Your task to perform on an android device: Open Google Chrome and open the bookmarks view Image 0: 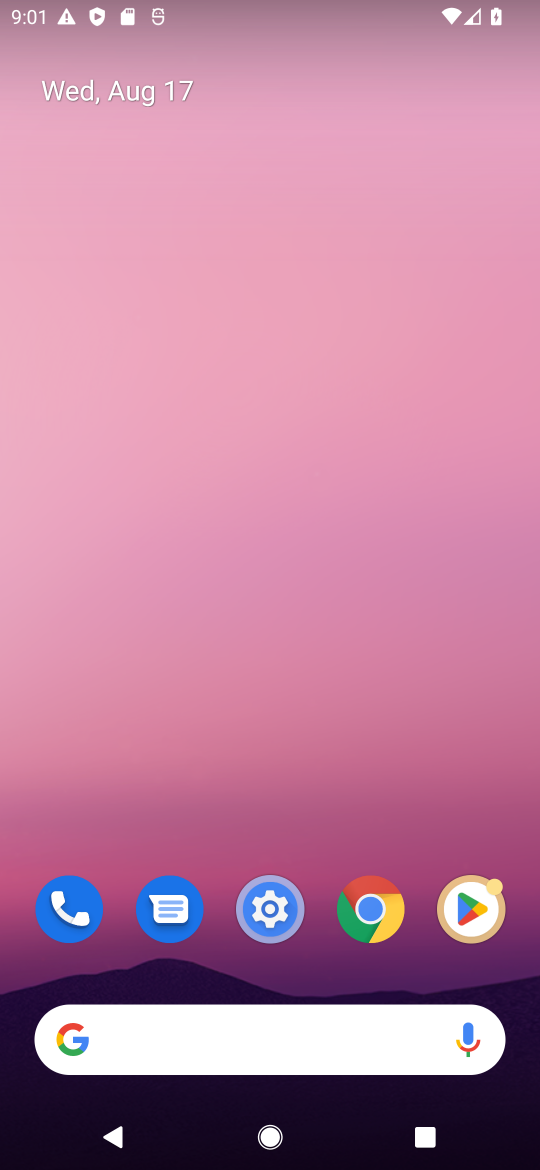
Step 0: drag from (280, 839) to (236, 204)
Your task to perform on an android device: Open Google Chrome and open the bookmarks view Image 1: 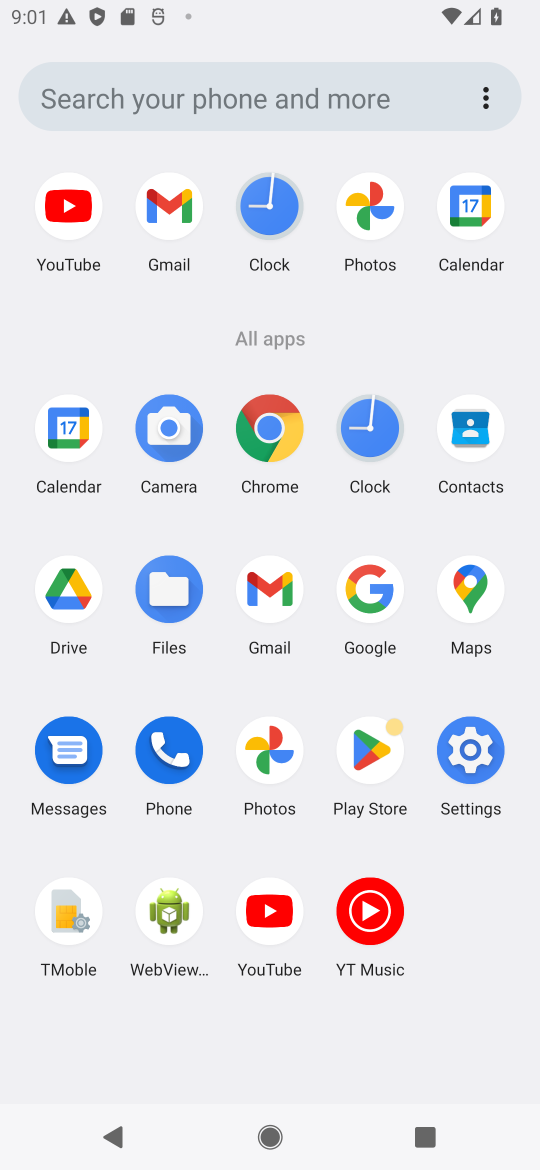
Step 1: click (256, 432)
Your task to perform on an android device: Open Google Chrome and open the bookmarks view Image 2: 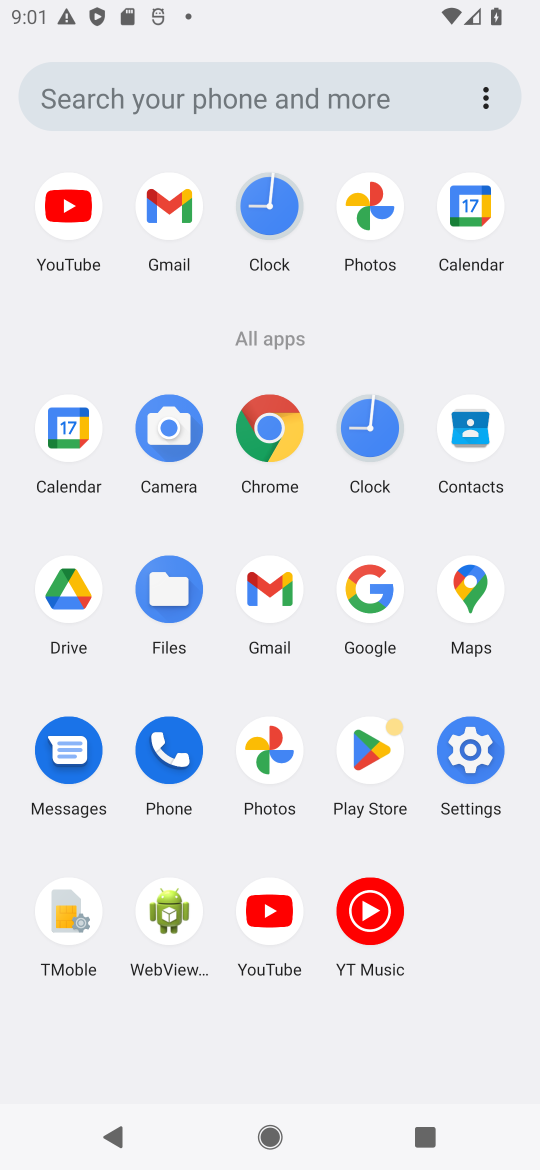
Step 2: click (264, 449)
Your task to perform on an android device: Open Google Chrome and open the bookmarks view Image 3: 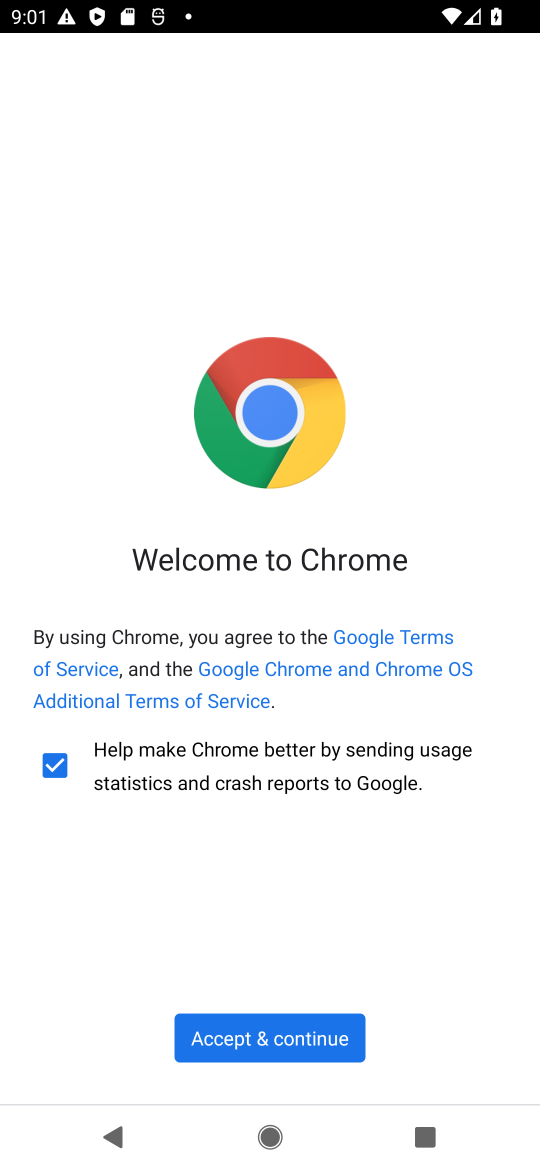
Step 3: click (347, 1033)
Your task to perform on an android device: Open Google Chrome and open the bookmarks view Image 4: 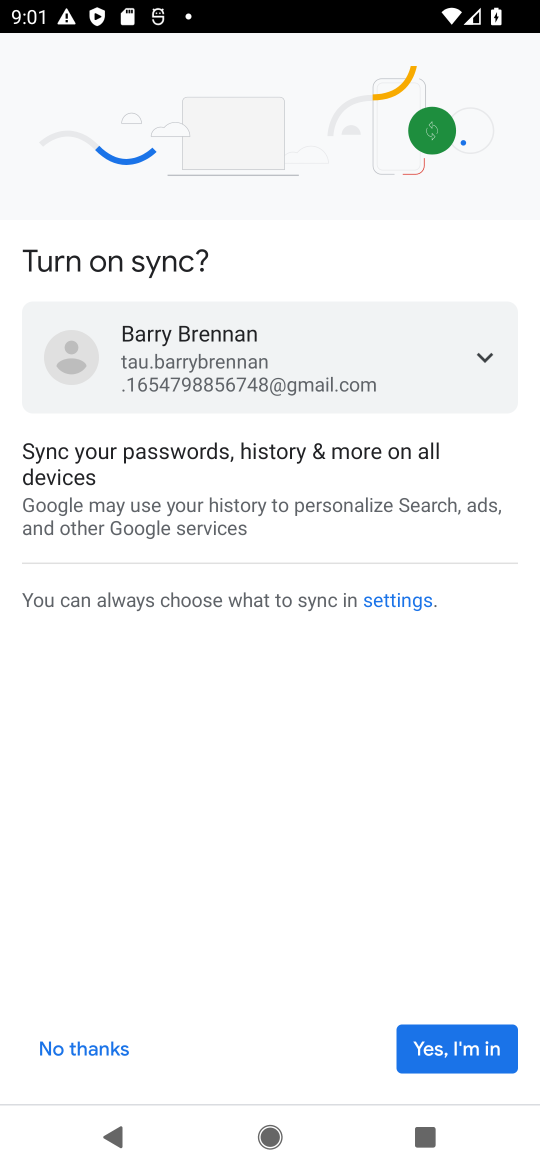
Step 4: click (471, 1045)
Your task to perform on an android device: Open Google Chrome and open the bookmarks view Image 5: 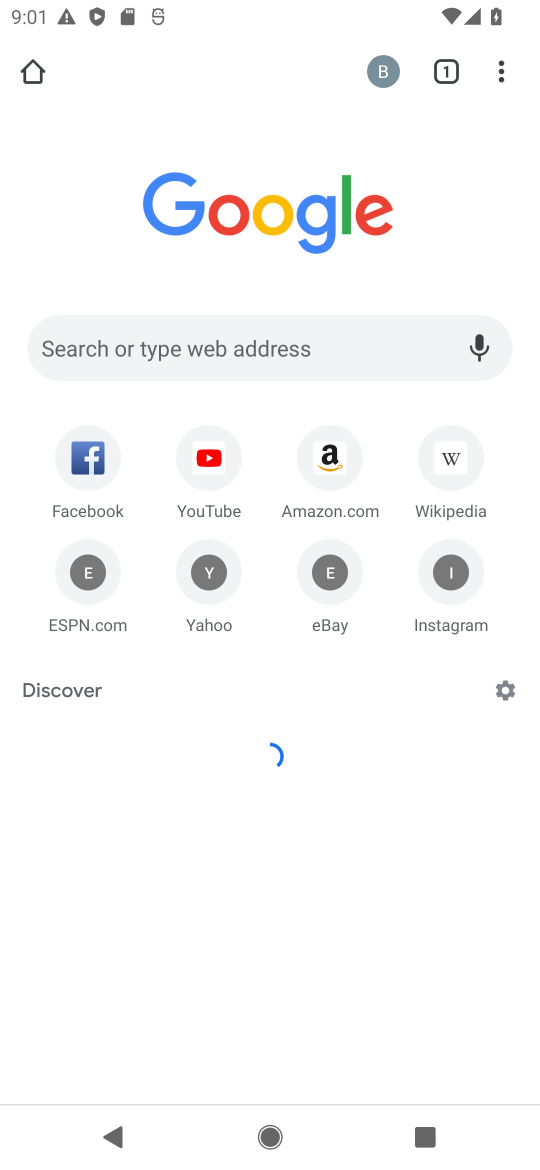
Step 5: task complete